Your task to perform on an android device: delete a single message in the gmail app Image 0: 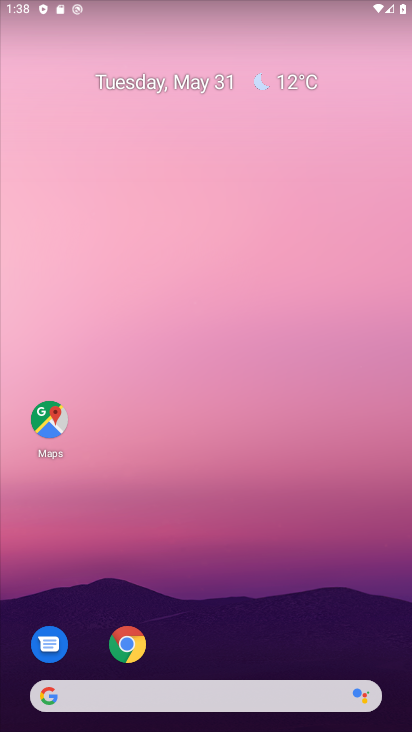
Step 0: drag from (138, 663) to (253, 189)
Your task to perform on an android device: delete a single message in the gmail app Image 1: 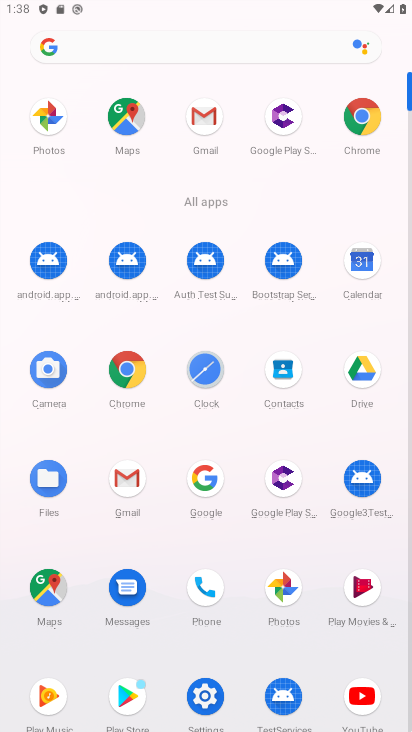
Step 1: click (125, 484)
Your task to perform on an android device: delete a single message in the gmail app Image 2: 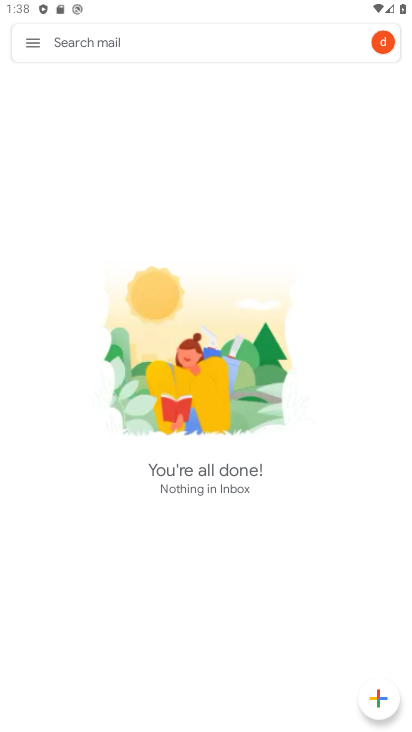
Step 2: click (31, 41)
Your task to perform on an android device: delete a single message in the gmail app Image 3: 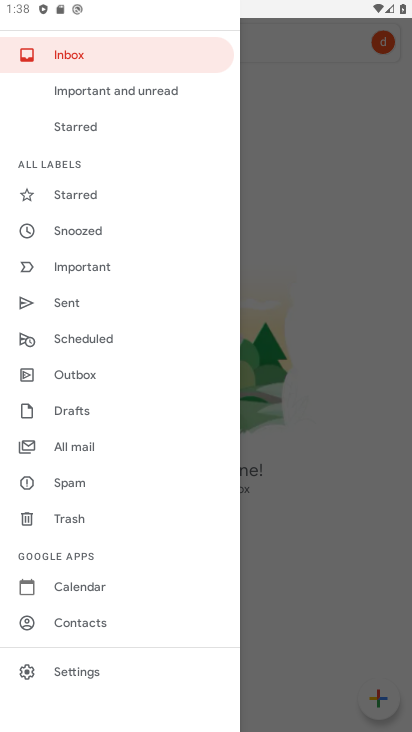
Step 3: click (105, 450)
Your task to perform on an android device: delete a single message in the gmail app Image 4: 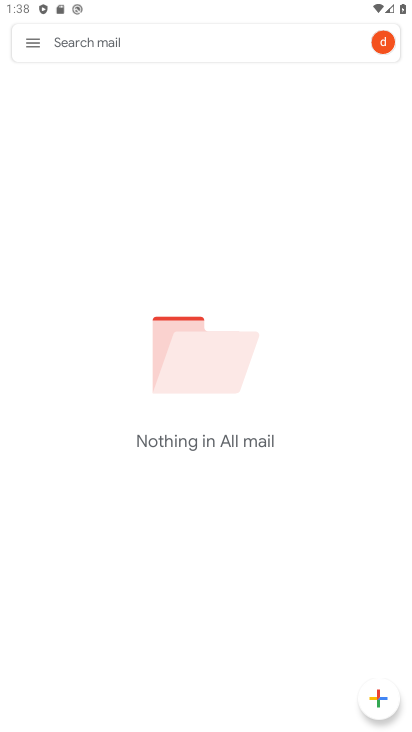
Step 4: task complete